Your task to perform on an android device: turn notification dots off Image 0: 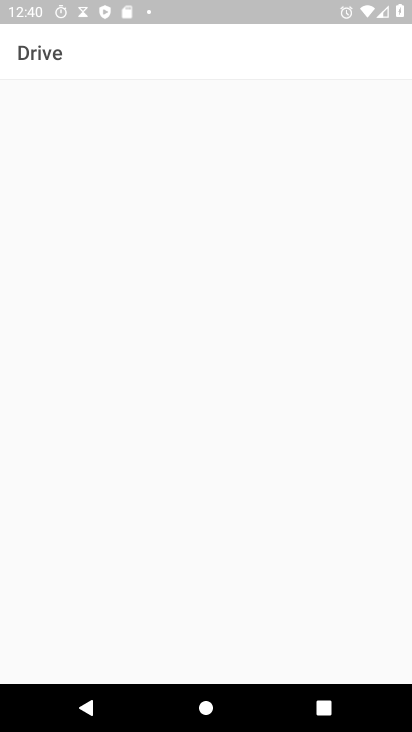
Step 0: press home button
Your task to perform on an android device: turn notification dots off Image 1: 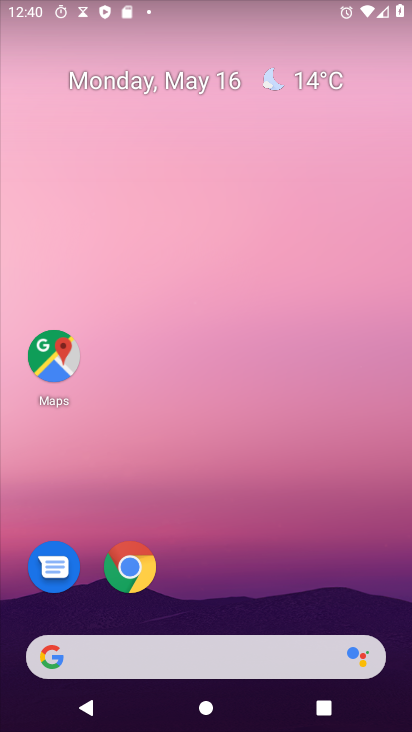
Step 1: drag from (272, 616) to (302, 54)
Your task to perform on an android device: turn notification dots off Image 2: 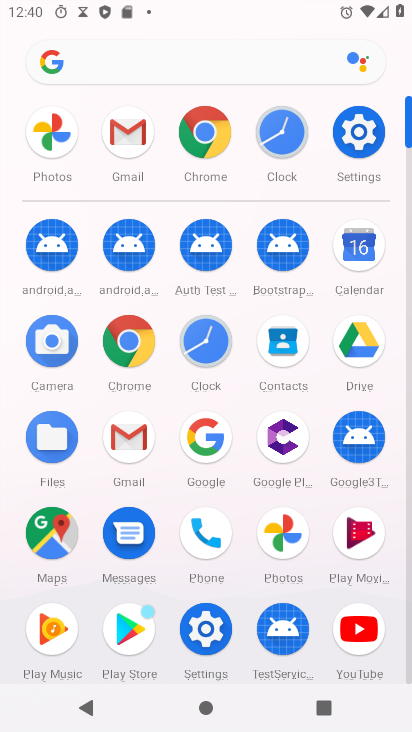
Step 2: click (207, 619)
Your task to perform on an android device: turn notification dots off Image 3: 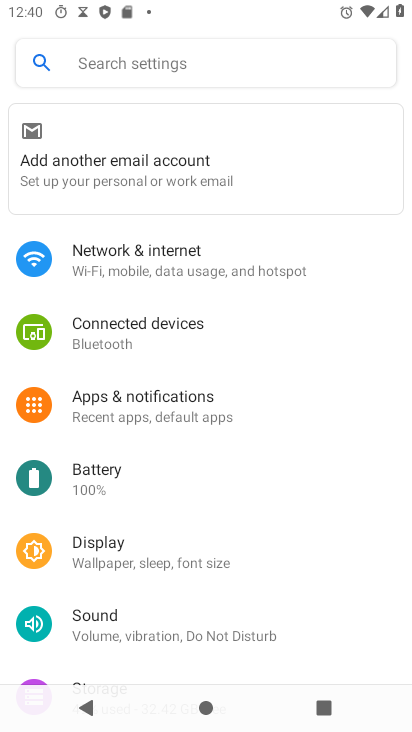
Step 3: click (173, 410)
Your task to perform on an android device: turn notification dots off Image 4: 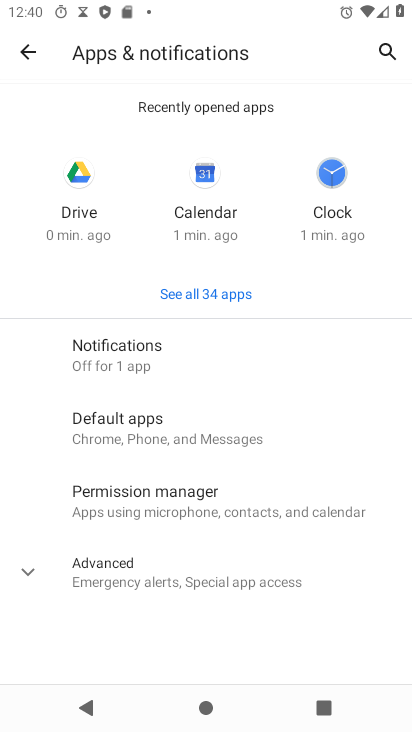
Step 4: click (140, 358)
Your task to perform on an android device: turn notification dots off Image 5: 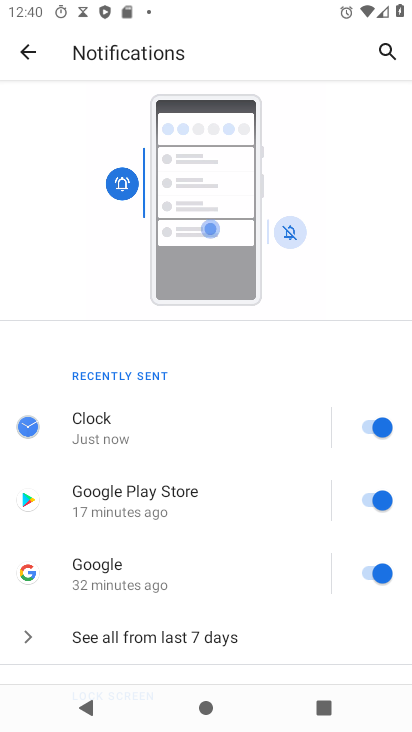
Step 5: drag from (178, 571) to (234, 252)
Your task to perform on an android device: turn notification dots off Image 6: 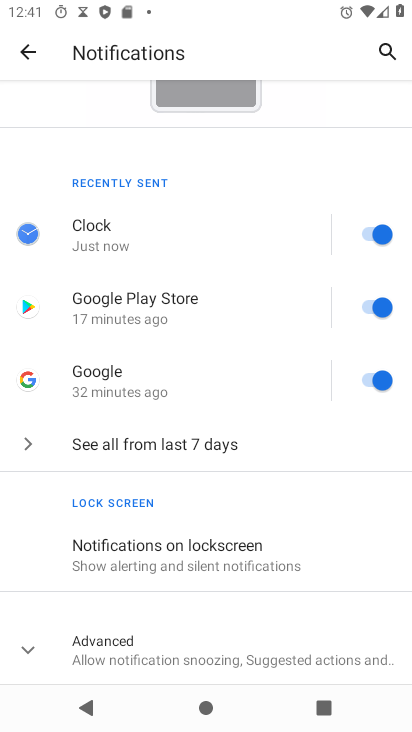
Step 6: drag from (162, 596) to (175, 382)
Your task to perform on an android device: turn notification dots off Image 7: 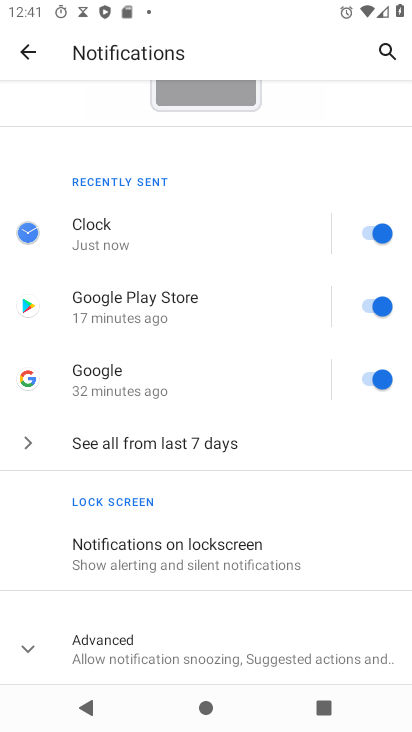
Step 7: click (137, 637)
Your task to perform on an android device: turn notification dots off Image 8: 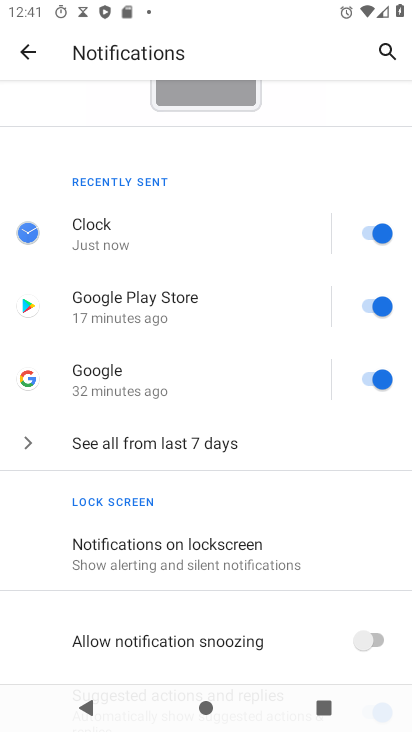
Step 8: drag from (213, 619) to (276, 384)
Your task to perform on an android device: turn notification dots off Image 9: 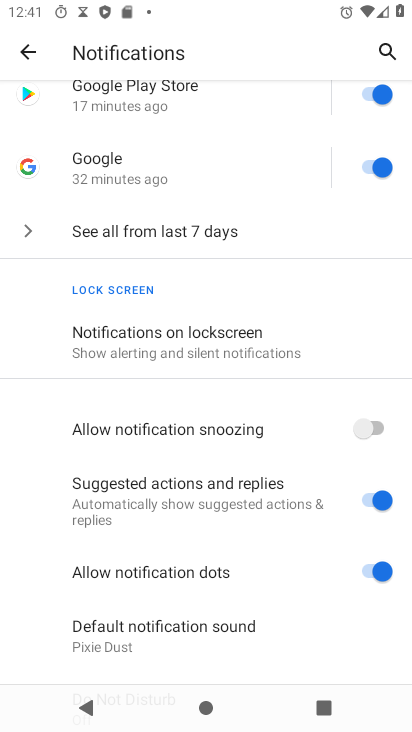
Step 9: click (362, 572)
Your task to perform on an android device: turn notification dots off Image 10: 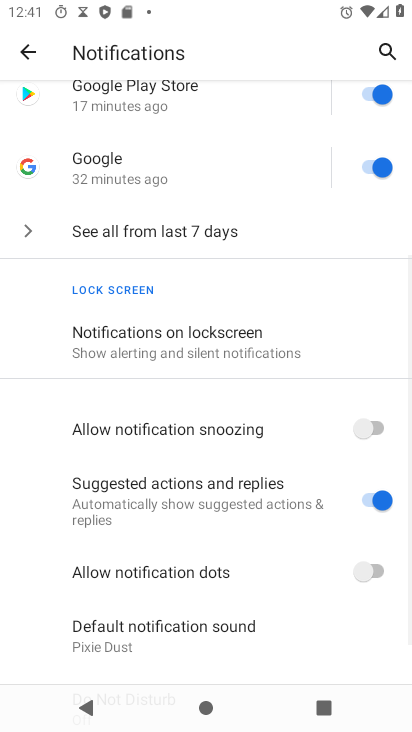
Step 10: task complete